Your task to perform on an android device: When is my next meeting? Image 0: 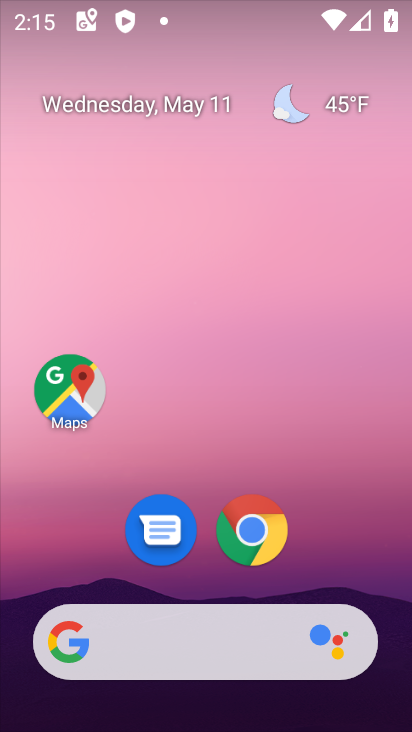
Step 0: drag from (326, 635) to (219, 165)
Your task to perform on an android device: When is my next meeting? Image 1: 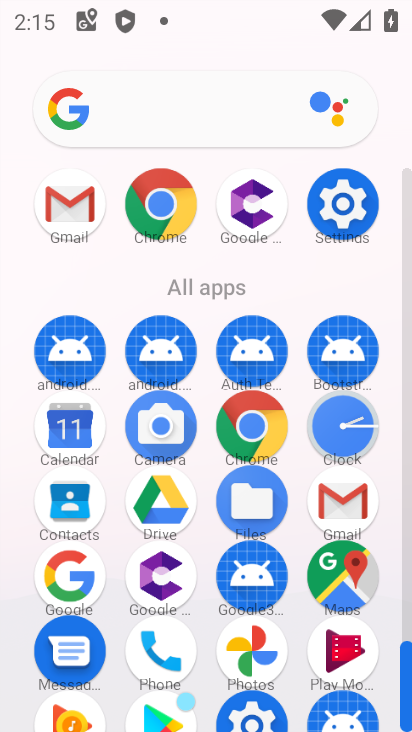
Step 1: click (62, 434)
Your task to perform on an android device: When is my next meeting? Image 2: 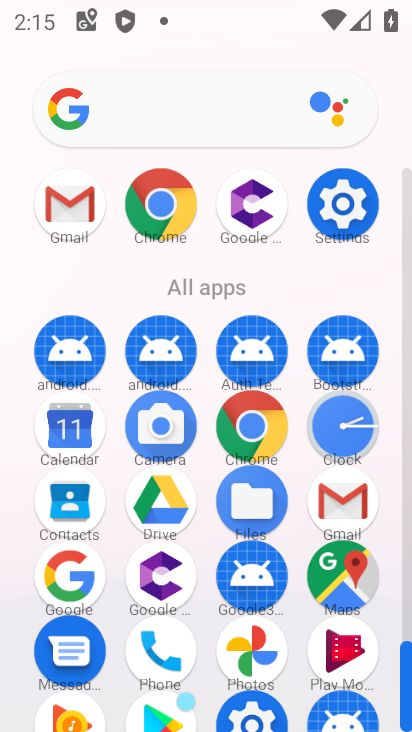
Step 2: click (66, 435)
Your task to perform on an android device: When is my next meeting? Image 3: 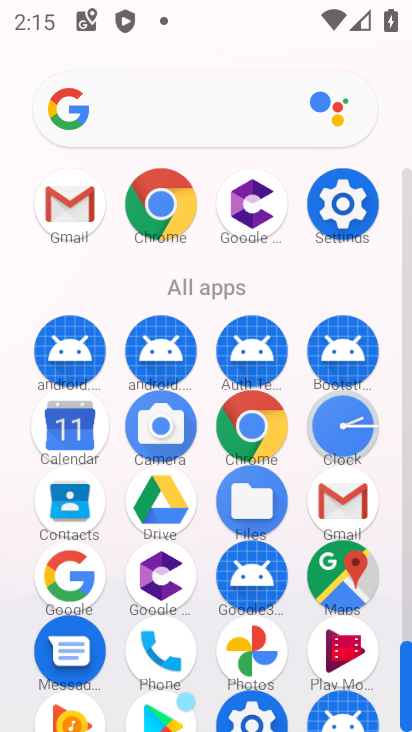
Step 3: click (70, 431)
Your task to perform on an android device: When is my next meeting? Image 4: 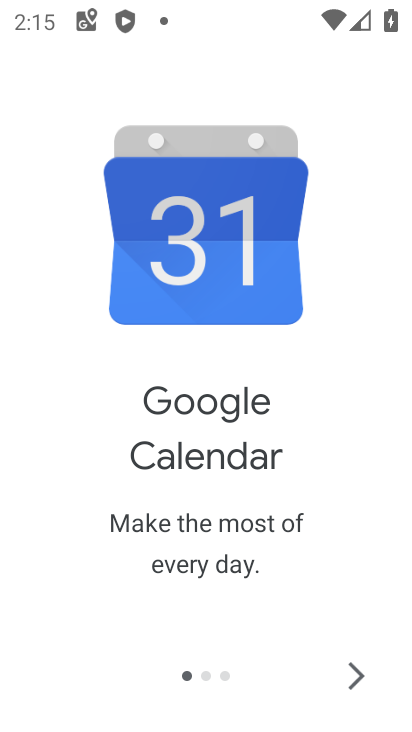
Step 4: click (353, 677)
Your task to perform on an android device: When is my next meeting? Image 5: 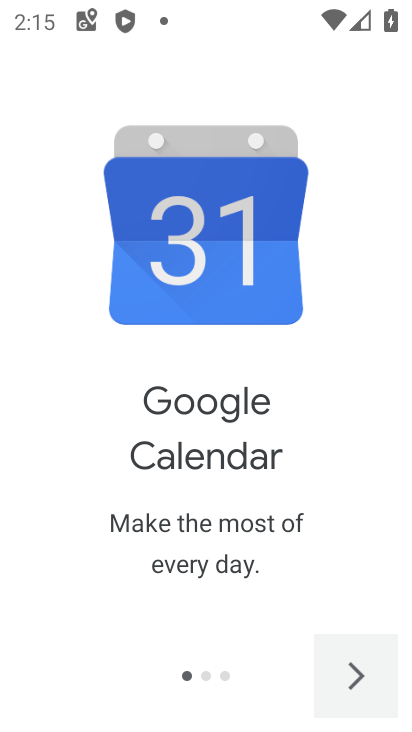
Step 5: click (358, 681)
Your task to perform on an android device: When is my next meeting? Image 6: 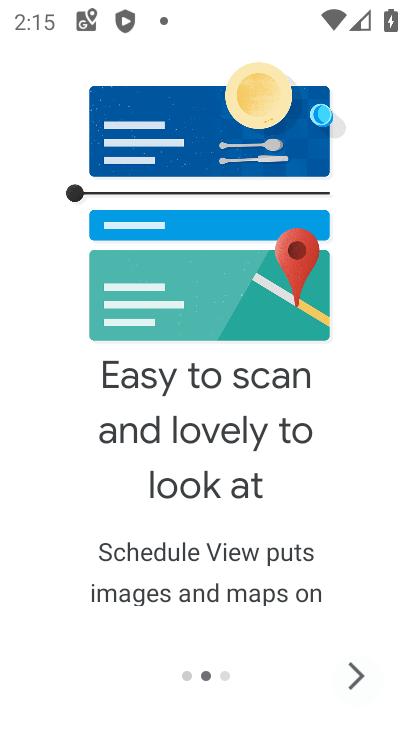
Step 6: click (358, 681)
Your task to perform on an android device: When is my next meeting? Image 7: 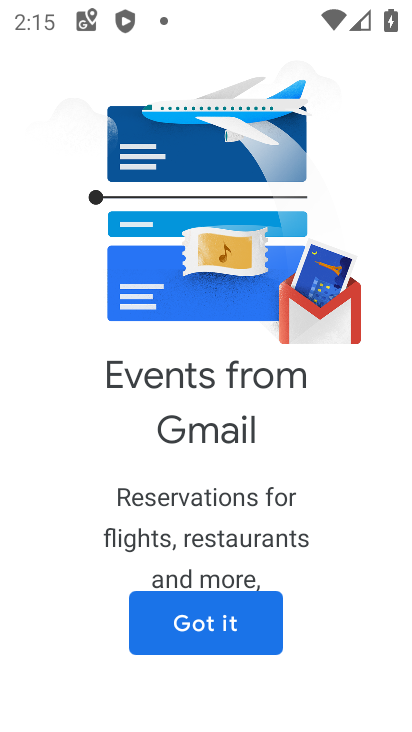
Step 7: click (205, 624)
Your task to perform on an android device: When is my next meeting? Image 8: 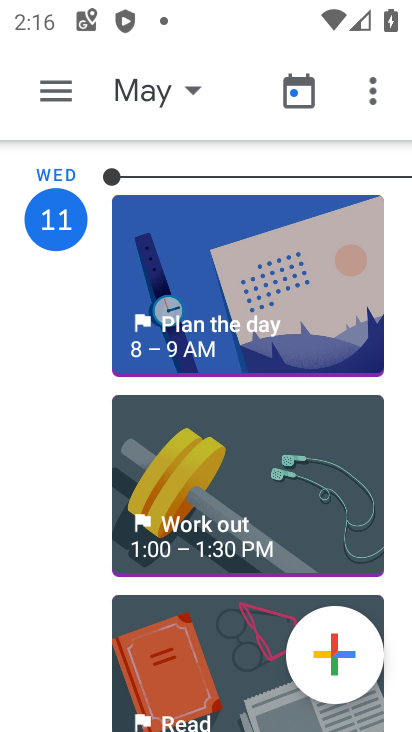
Step 8: drag from (233, 87) to (164, 148)
Your task to perform on an android device: When is my next meeting? Image 9: 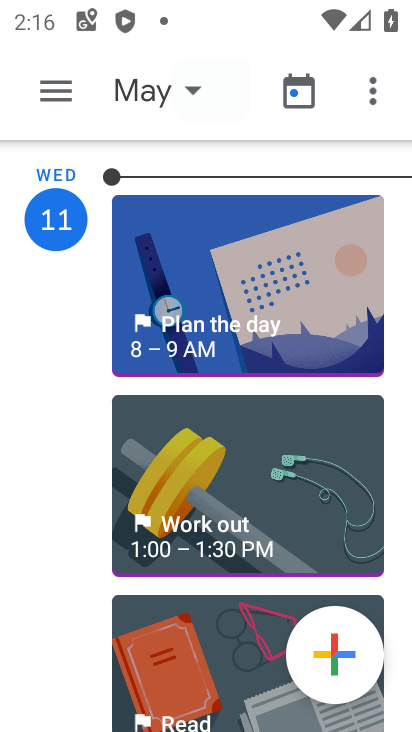
Step 9: click (121, 147)
Your task to perform on an android device: When is my next meeting? Image 10: 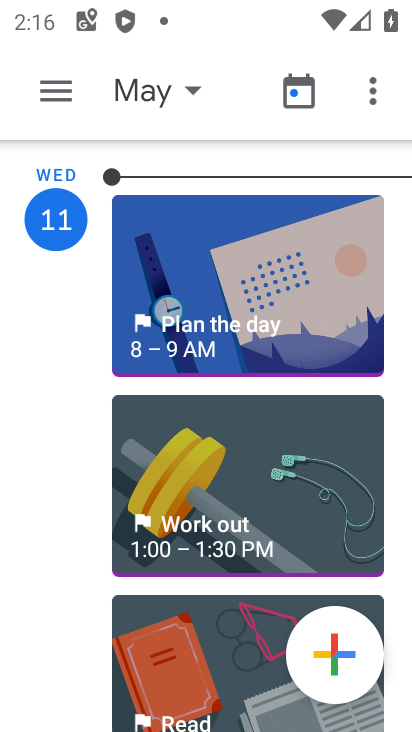
Step 10: task complete